Your task to perform on an android device: turn on improve location accuracy Image 0: 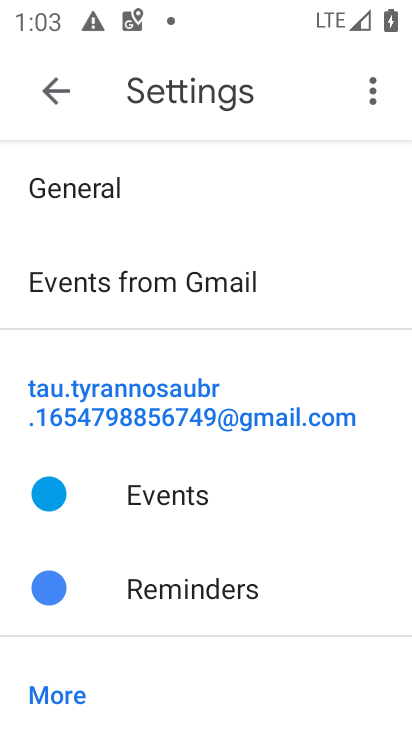
Step 0: press home button
Your task to perform on an android device: turn on improve location accuracy Image 1: 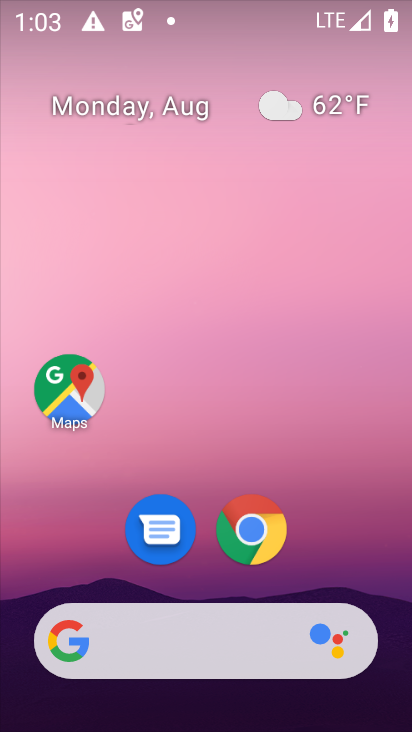
Step 1: drag from (137, 610) to (142, 261)
Your task to perform on an android device: turn on improve location accuracy Image 2: 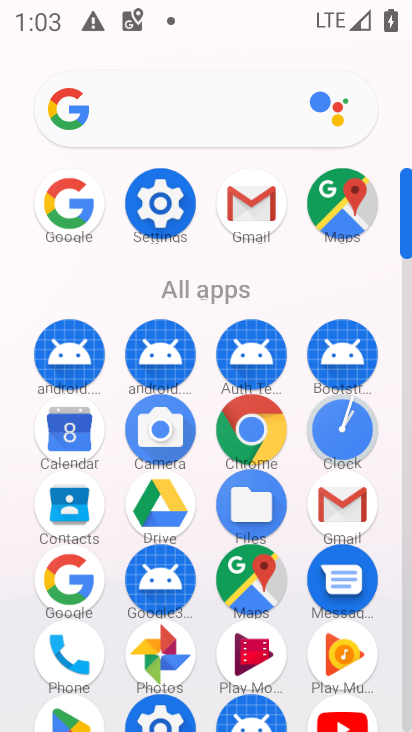
Step 2: click (157, 210)
Your task to perform on an android device: turn on improve location accuracy Image 3: 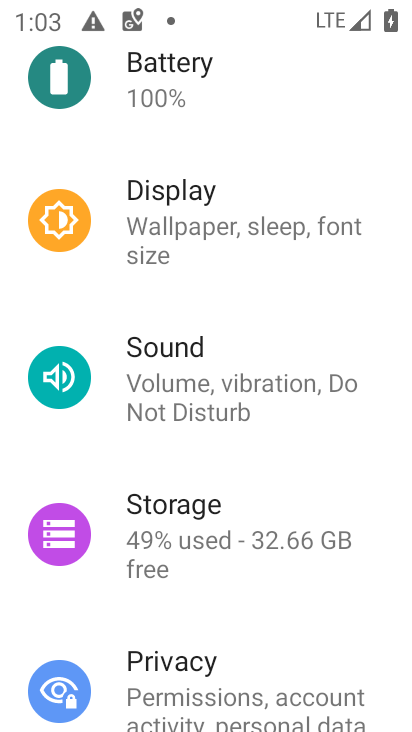
Step 3: drag from (153, 697) to (145, 375)
Your task to perform on an android device: turn on improve location accuracy Image 4: 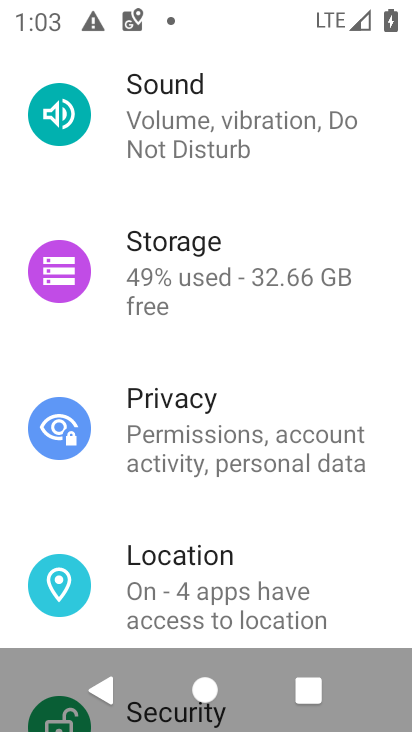
Step 4: click (189, 579)
Your task to perform on an android device: turn on improve location accuracy Image 5: 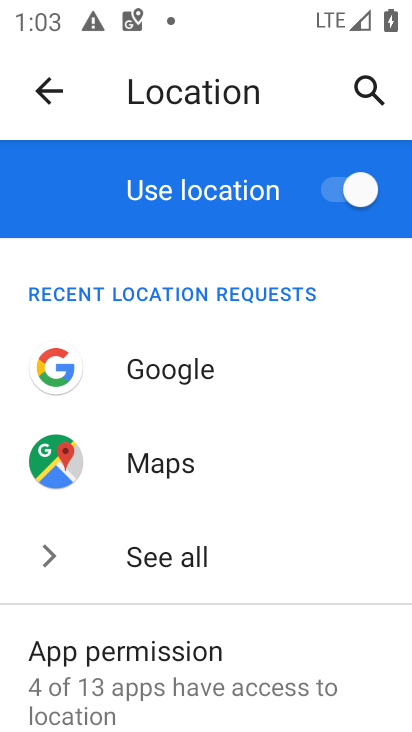
Step 5: drag from (165, 706) to (163, 345)
Your task to perform on an android device: turn on improve location accuracy Image 6: 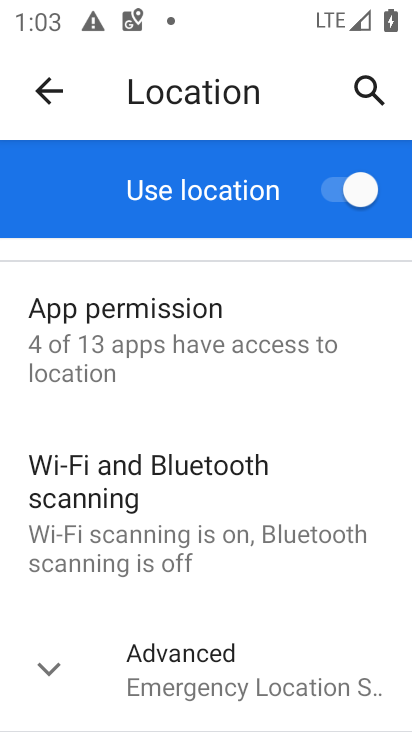
Step 6: click (171, 665)
Your task to perform on an android device: turn on improve location accuracy Image 7: 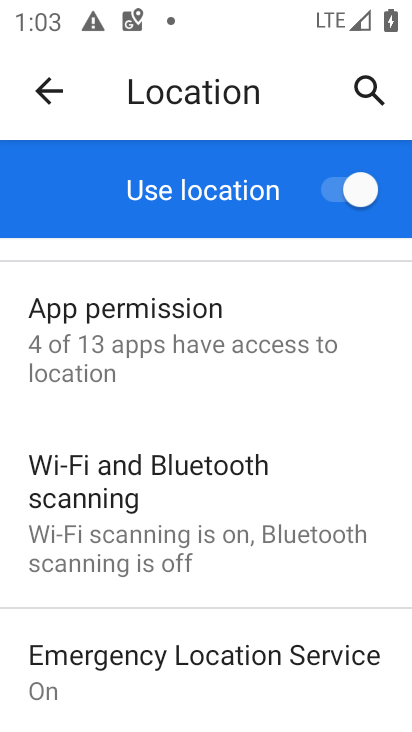
Step 7: drag from (139, 690) to (127, 408)
Your task to perform on an android device: turn on improve location accuracy Image 8: 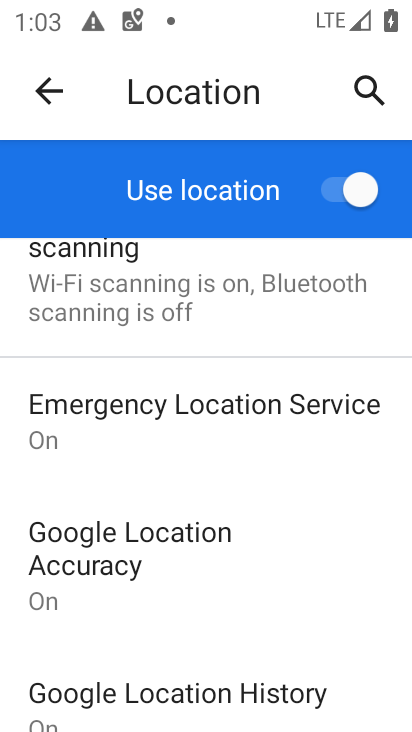
Step 8: click (91, 573)
Your task to perform on an android device: turn on improve location accuracy Image 9: 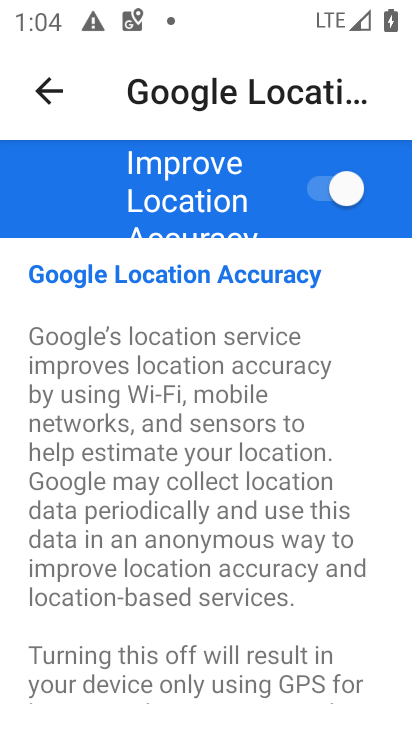
Step 9: task complete